Your task to perform on an android device: Open Wikipedia Image 0: 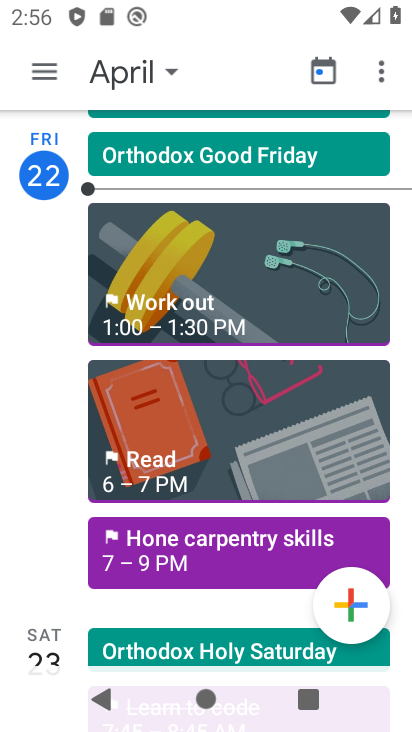
Step 0: press home button
Your task to perform on an android device: Open Wikipedia Image 1: 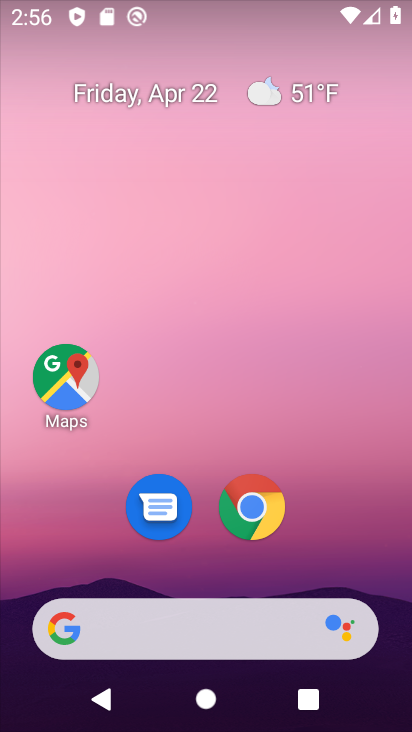
Step 1: drag from (225, 594) to (335, 22)
Your task to perform on an android device: Open Wikipedia Image 2: 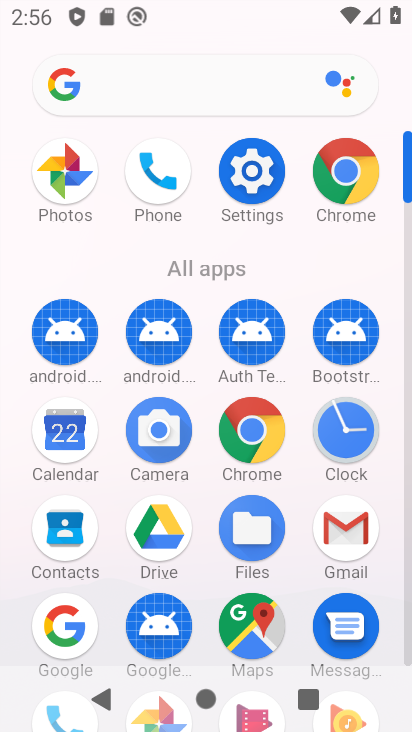
Step 2: click (246, 432)
Your task to perform on an android device: Open Wikipedia Image 3: 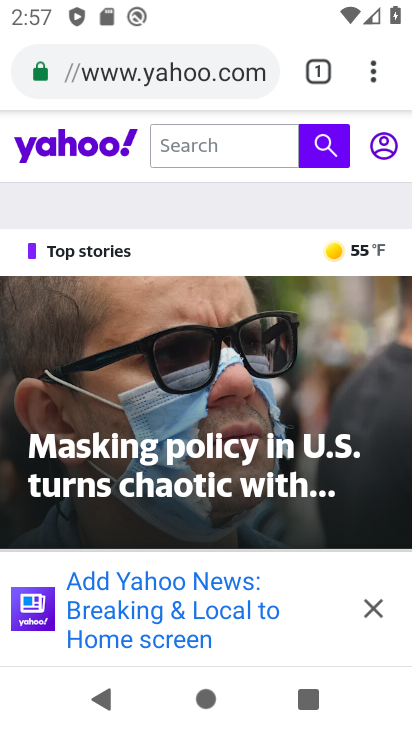
Step 3: click (315, 78)
Your task to perform on an android device: Open Wikipedia Image 4: 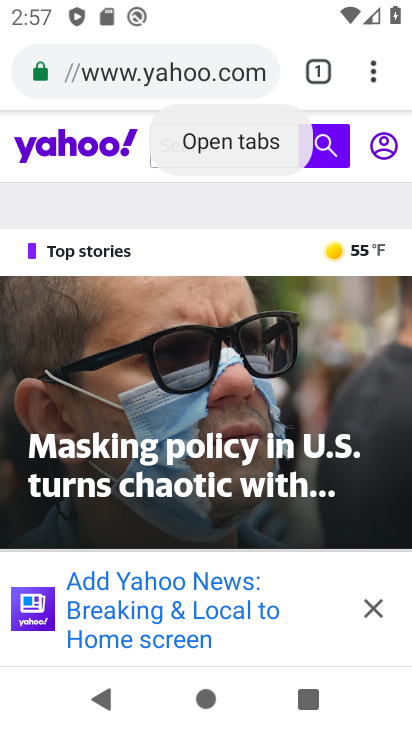
Step 4: click (310, 70)
Your task to perform on an android device: Open Wikipedia Image 5: 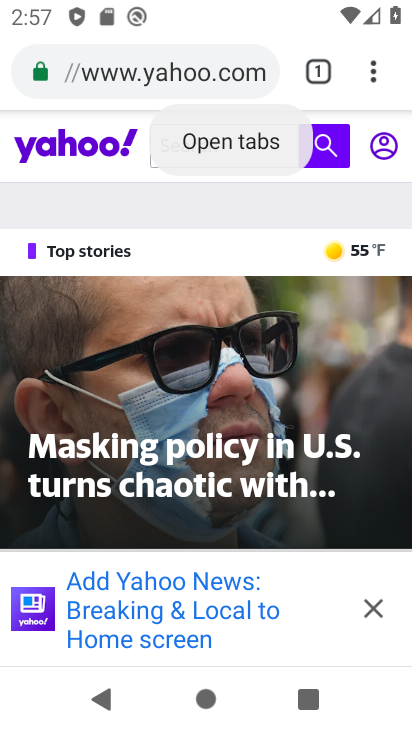
Step 5: click (310, 70)
Your task to perform on an android device: Open Wikipedia Image 6: 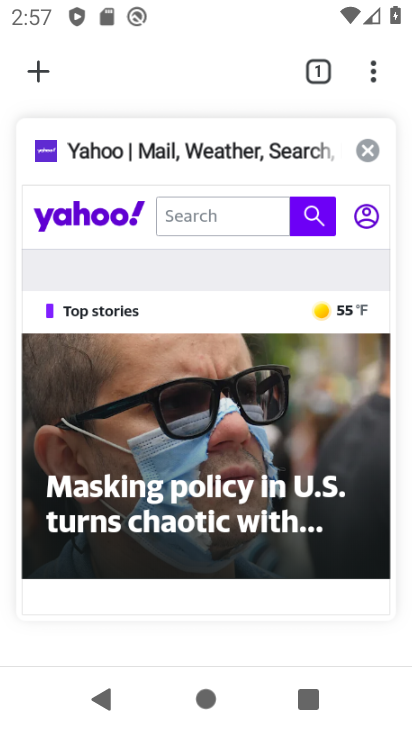
Step 6: click (46, 71)
Your task to perform on an android device: Open Wikipedia Image 7: 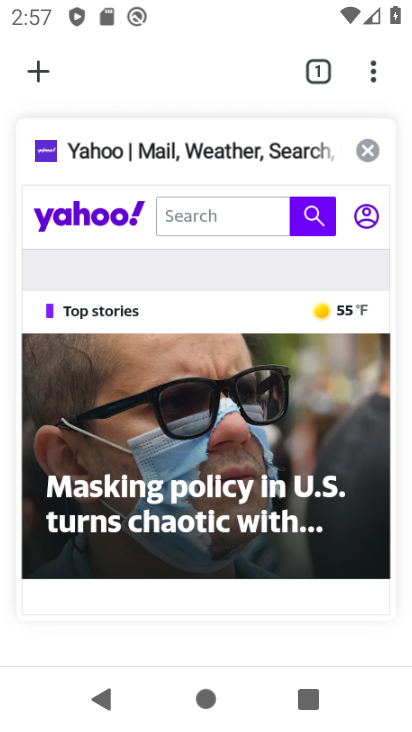
Step 7: click (32, 63)
Your task to perform on an android device: Open Wikipedia Image 8: 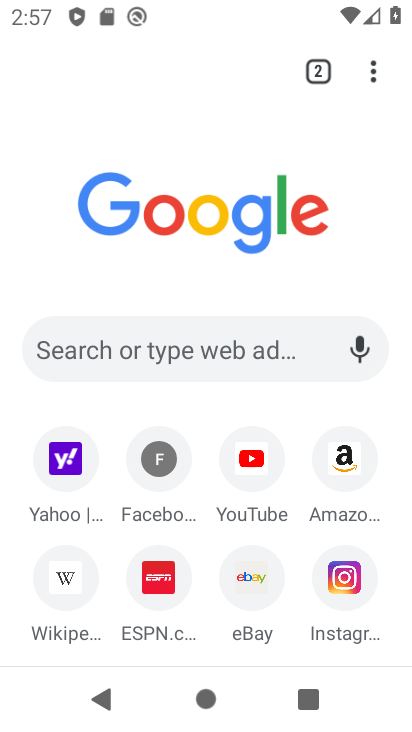
Step 8: click (62, 576)
Your task to perform on an android device: Open Wikipedia Image 9: 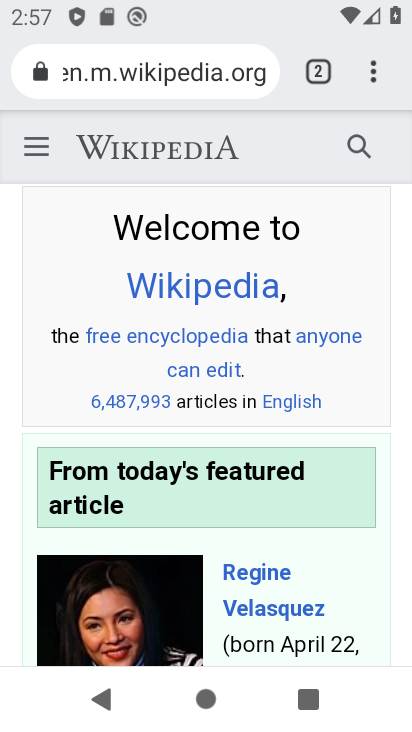
Step 9: task complete